Your task to perform on an android device: turn on airplane mode Image 0: 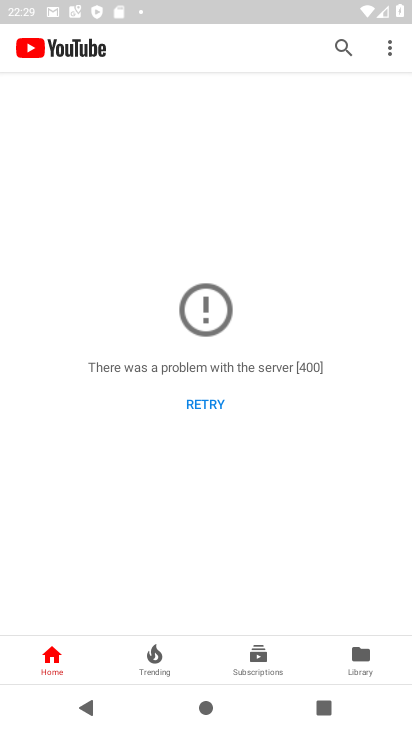
Step 0: press home button
Your task to perform on an android device: turn on airplane mode Image 1: 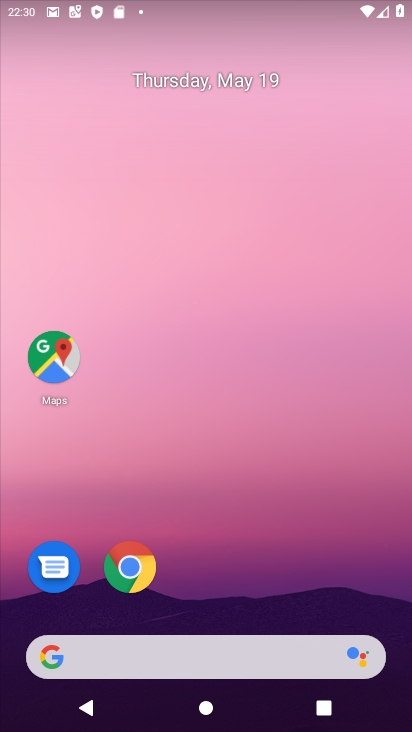
Step 1: drag from (200, 5) to (223, 540)
Your task to perform on an android device: turn on airplane mode Image 2: 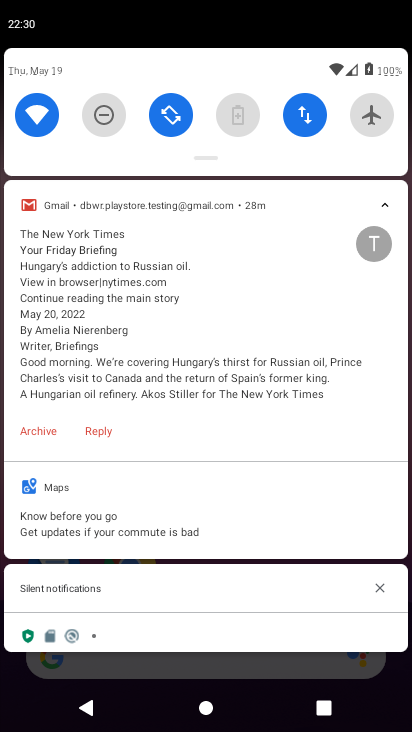
Step 2: click (377, 108)
Your task to perform on an android device: turn on airplane mode Image 3: 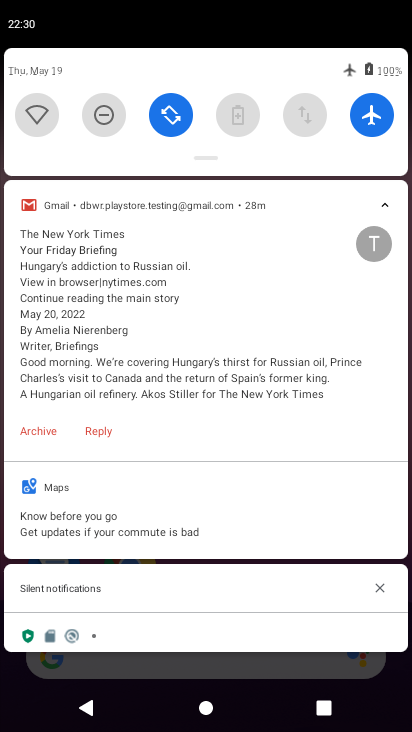
Step 3: task complete